Your task to perform on an android device: turn on notifications settings in the gmail app Image 0: 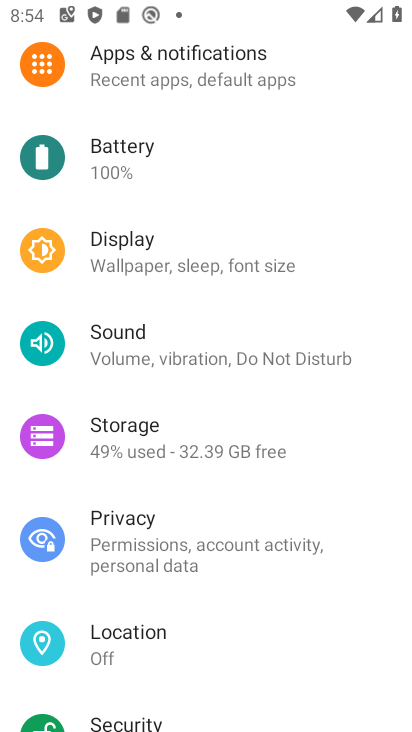
Step 0: press home button
Your task to perform on an android device: turn on notifications settings in the gmail app Image 1: 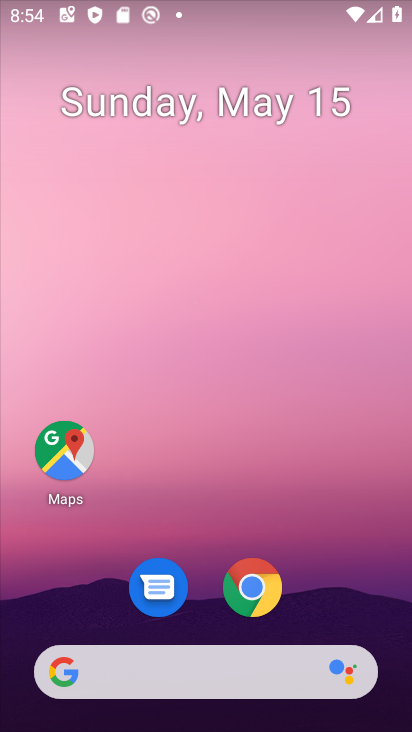
Step 1: drag from (401, 647) to (316, 46)
Your task to perform on an android device: turn on notifications settings in the gmail app Image 2: 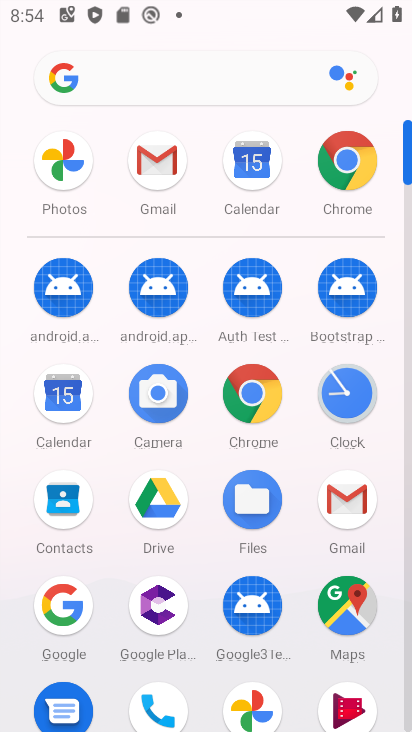
Step 2: click (374, 513)
Your task to perform on an android device: turn on notifications settings in the gmail app Image 3: 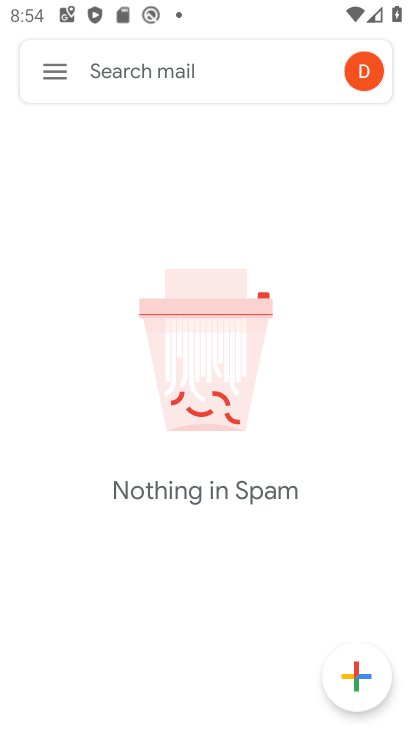
Step 3: press home button
Your task to perform on an android device: turn on notifications settings in the gmail app Image 4: 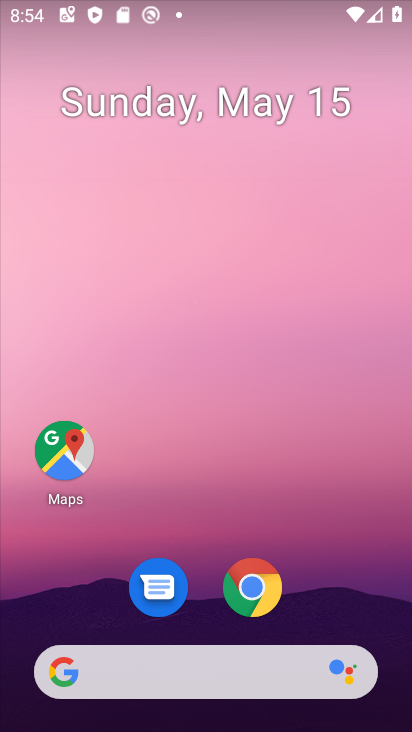
Step 4: drag from (383, 640) to (249, 66)
Your task to perform on an android device: turn on notifications settings in the gmail app Image 5: 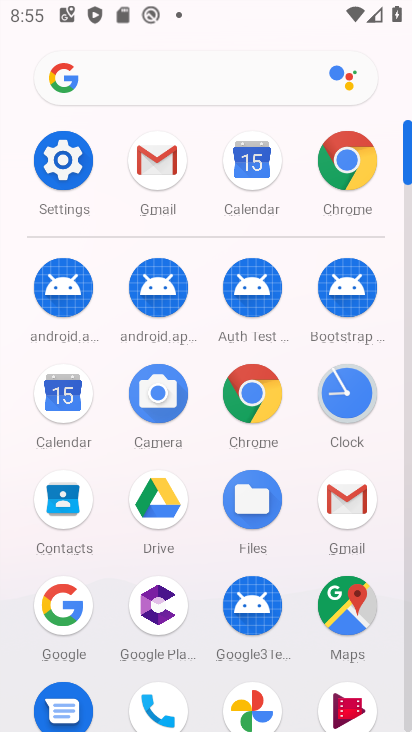
Step 5: click (349, 515)
Your task to perform on an android device: turn on notifications settings in the gmail app Image 6: 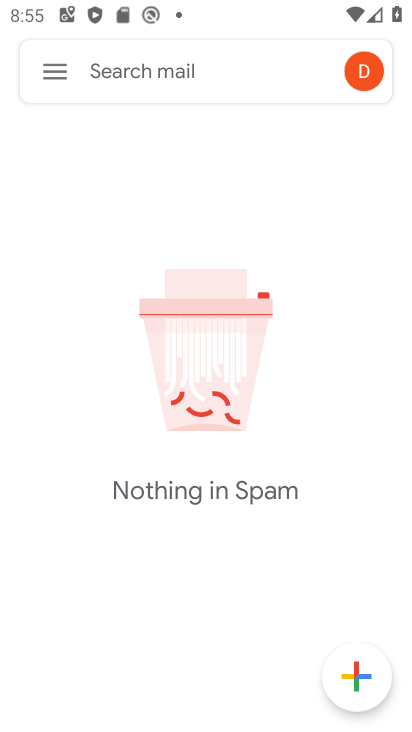
Step 6: click (61, 67)
Your task to perform on an android device: turn on notifications settings in the gmail app Image 7: 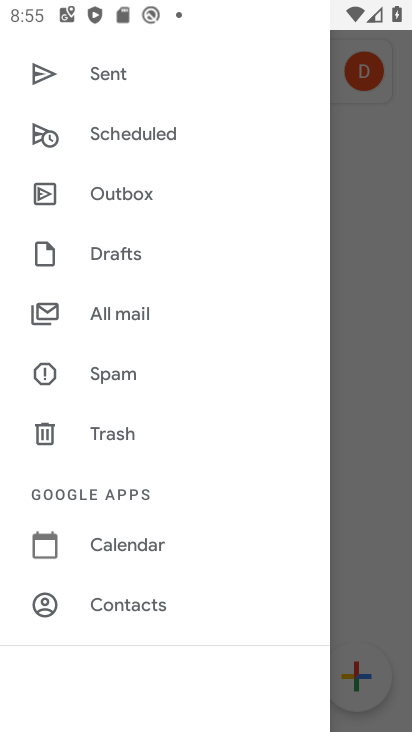
Step 7: drag from (169, 619) to (109, 147)
Your task to perform on an android device: turn on notifications settings in the gmail app Image 8: 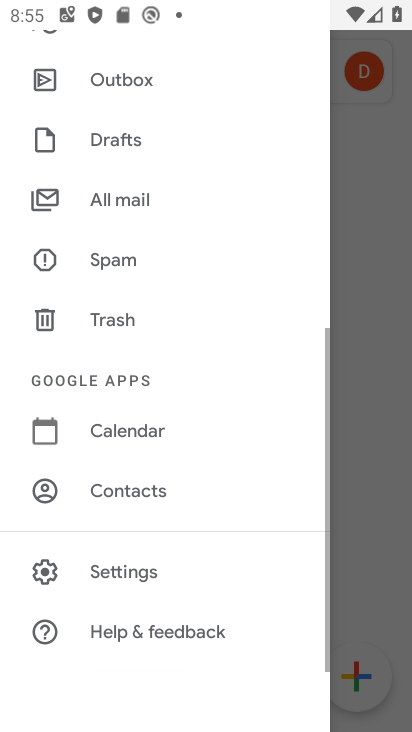
Step 8: click (170, 570)
Your task to perform on an android device: turn on notifications settings in the gmail app Image 9: 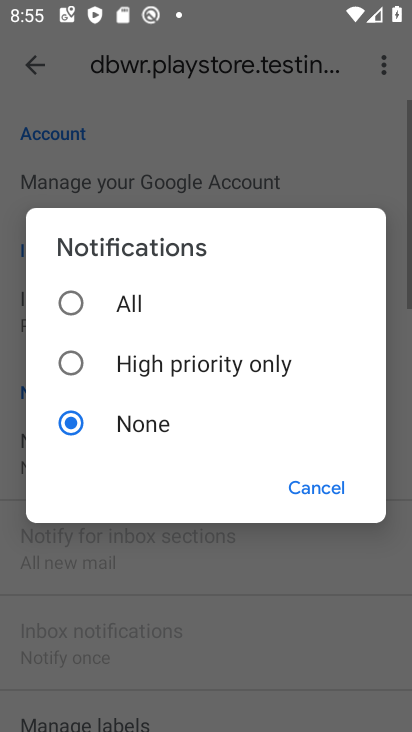
Step 9: click (291, 489)
Your task to perform on an android device: turn on notifications settings in the gmail app Image 10: 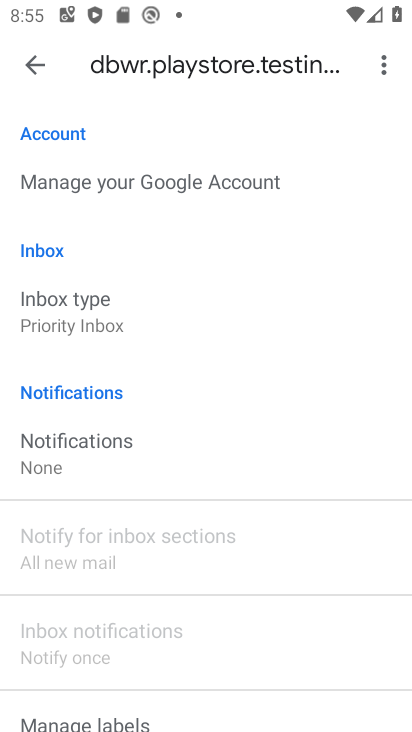
Step 10: click (130, 451)
Your task to perform on an android device: turn on notifications settings in the gmail app Image 11: 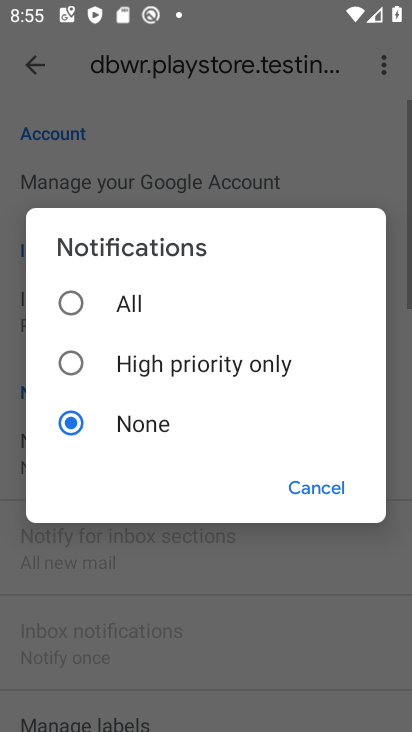
Step 11: click (79, 305)
Your task to perform on an android device: turn on notifications settings in the gmail app Image 12: 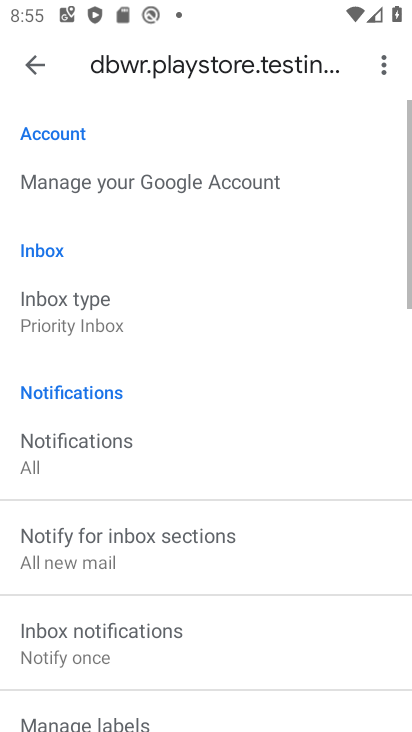
Step 12: task complete